Your task to perform on an android device: see creations saved in the google photos Image 0: 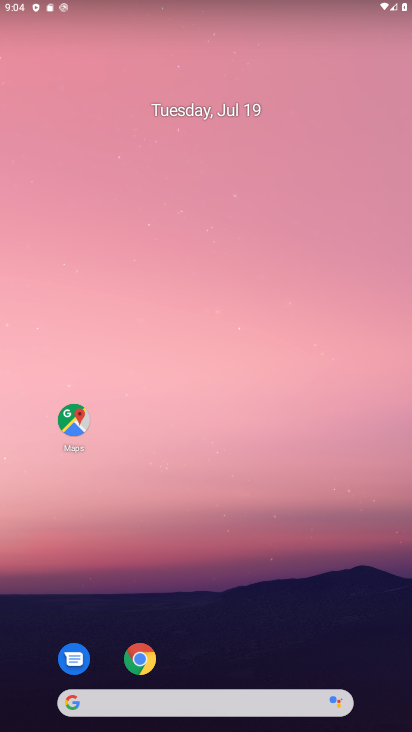
Step 0: drag from (237, 678) to (267, 264)
Your task to perform on an android device: see creations saved in the google photos Image 1: 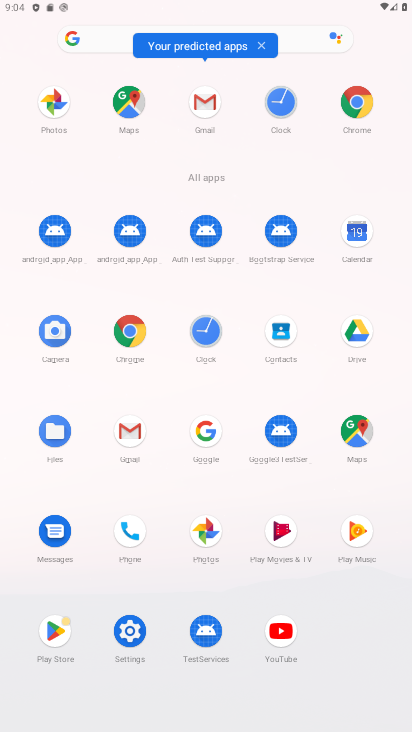
Step 1: click (212, 550)
Your task to perform on an android device: see creations saved in the google photos Image 2: 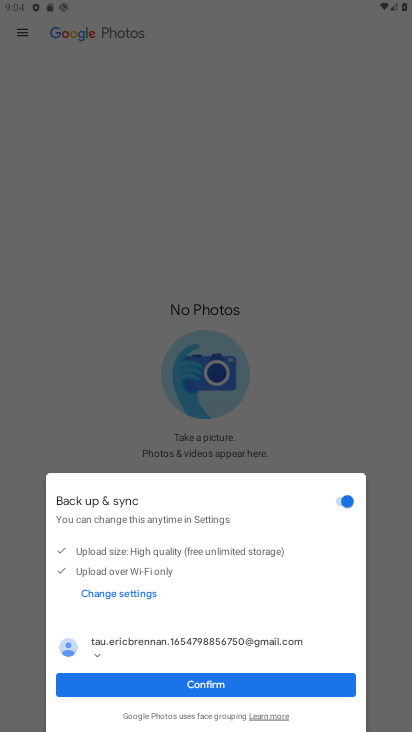
Step 2: click (217, 682)
Your task to perform on an android device: see creations saved in the google photos Image 3: 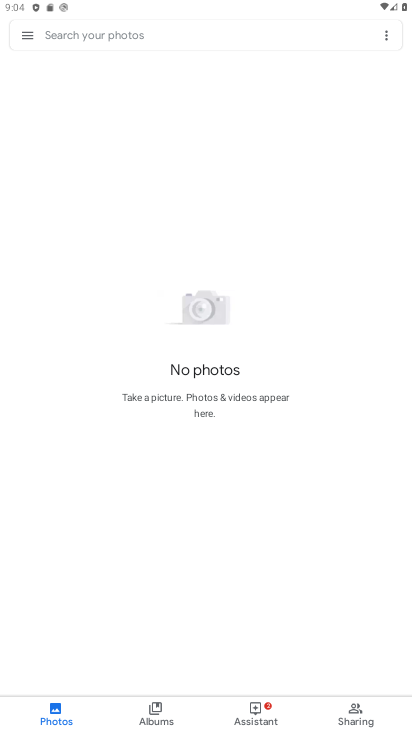
Step 3: click (220, 34)
Your task to perform on an android device: see creations saved in the google photos Image 4: 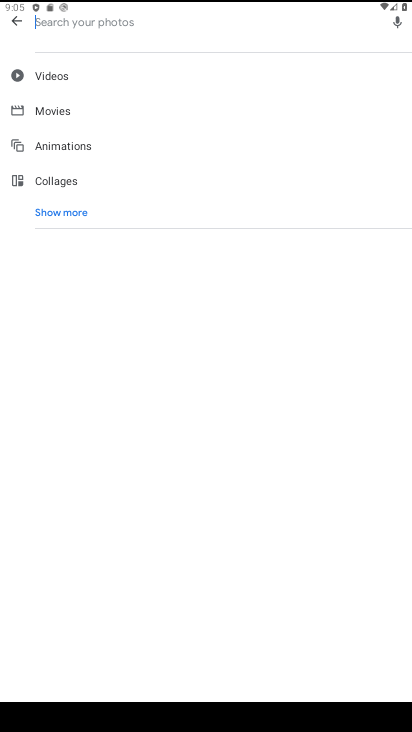
Step 4: click (76, 210)
Your task to perform on an android device: see creations saved in the google photos Image 5: 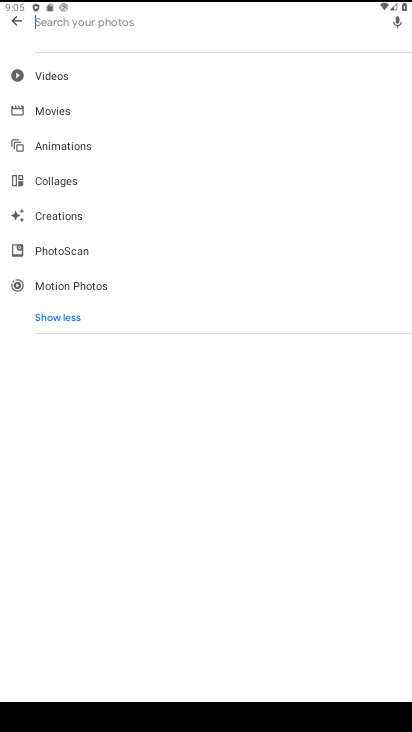
Step 5: click (63, 226)
Your task to perform on an android device: see creations saved in the google photos Image 6: 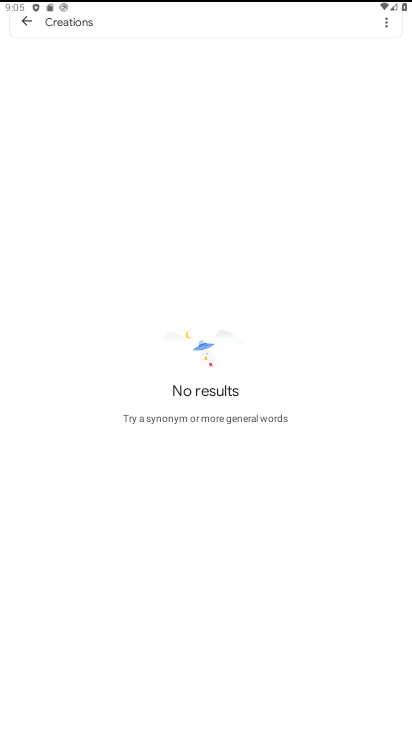
Step 6: task complete